Your task to perform on an android device: delete browsing data in the chrome app Image 0: 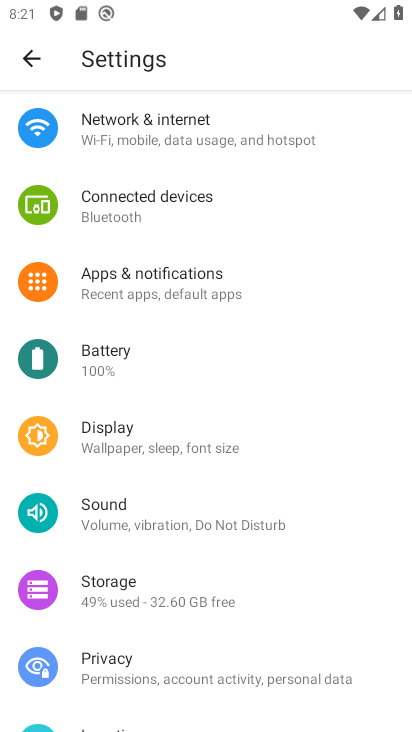
Step 0: press home button
Your task to perform on an android device: delete browsing data in the chrome app Image 1: 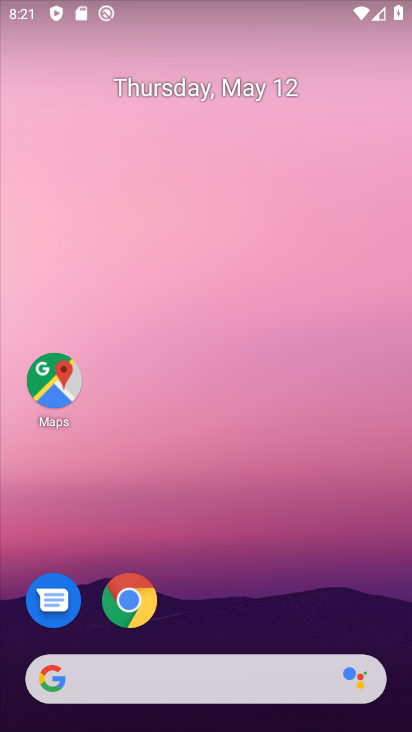
Step 1: click (136, 622)
Your task to perform on an android device: delete browsing data in the chrome app Image 2: 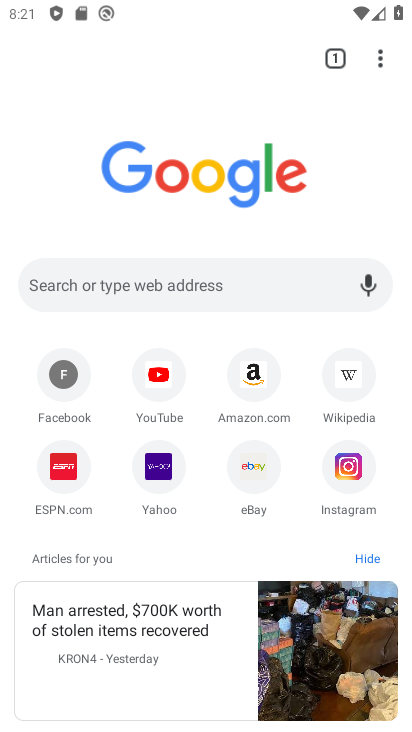
Step 2: click (378, 64)
Your task to perform on an android device: delete browsing data in the chrome app Image 3: 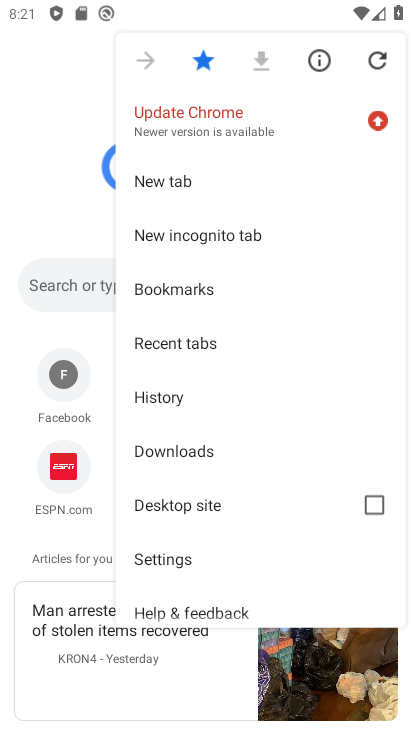
Step 3: click (184, 403)
Your task to perform on an android device: delete browsing data in the chrome app Image 4: 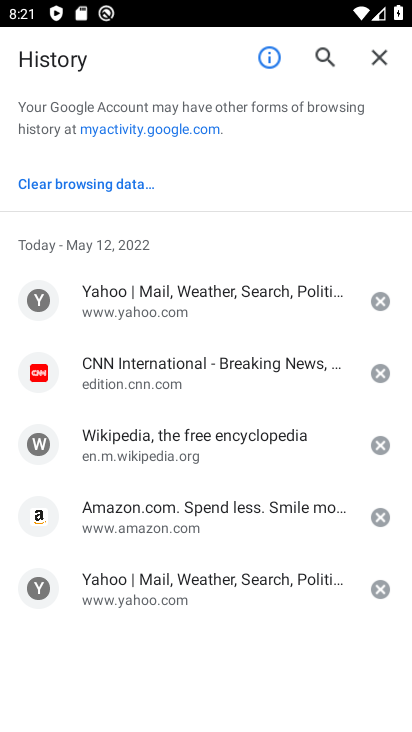
Step 4: click (106, 179)
Your task to perform on an android device: delete browsing data in the chrome app Image 5: 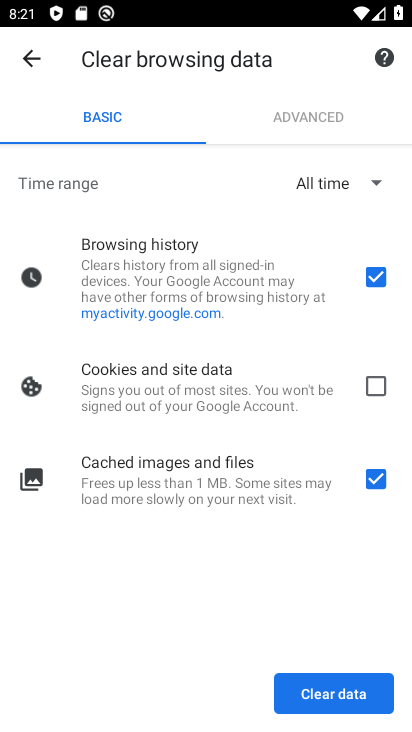
Step 5: click (370, 384)
Your task to perform on an android device: delete browsing data in the chrome app Image 6: 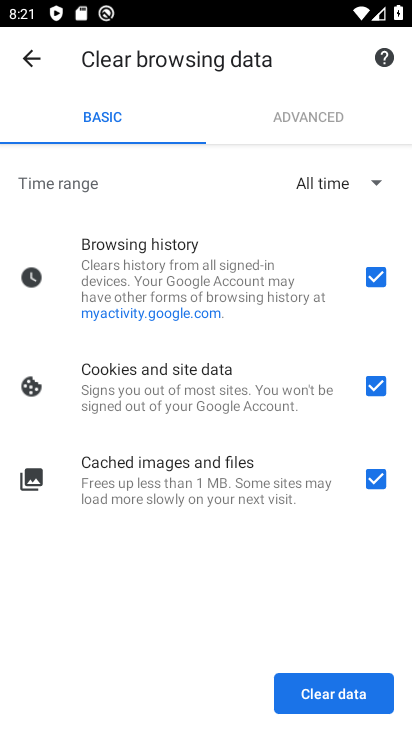
Step 6: click (381, 379)
Your task to perform on an android device: delete browsing data in the chrome app Image 7: 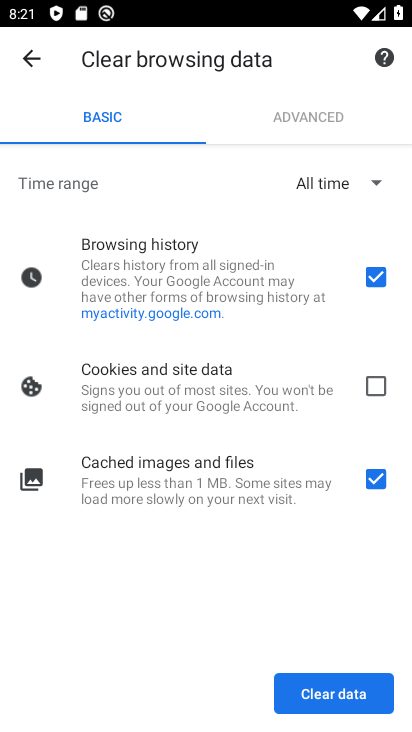
Step 7: click (379, 481)
Your task to perform on an android device: delete browsing data in the chrome app Image 8: 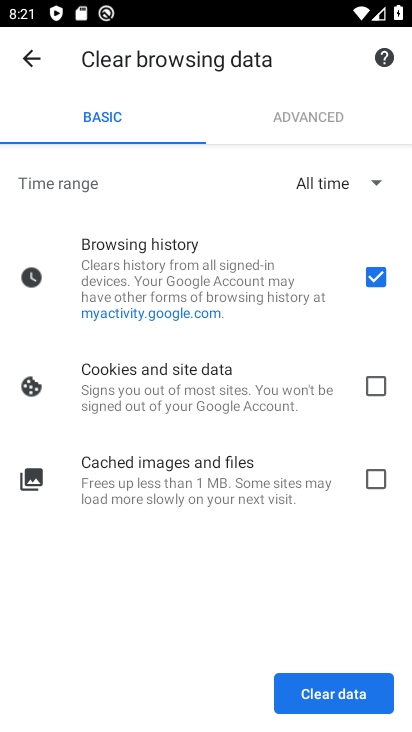
Step 8: click (327, 704)
Your task to perform on an android device: delete browsing data in the chrome app Image 9: 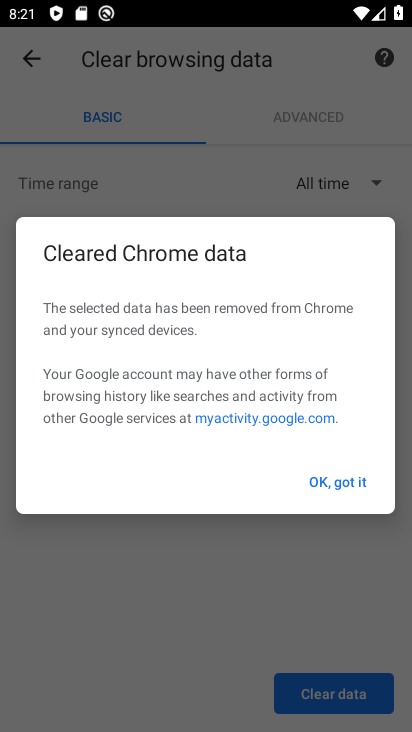
Step 9: click (367, 482)
Your task to perform on an android device: delete browsing data in the chrome app Image 10: 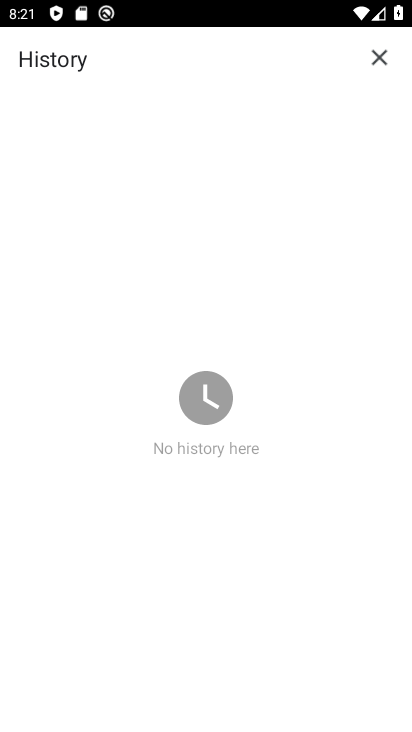
Step 10: task complete